Your task to perform on an android device: turn on notifications settings in the gmail app Image 0: 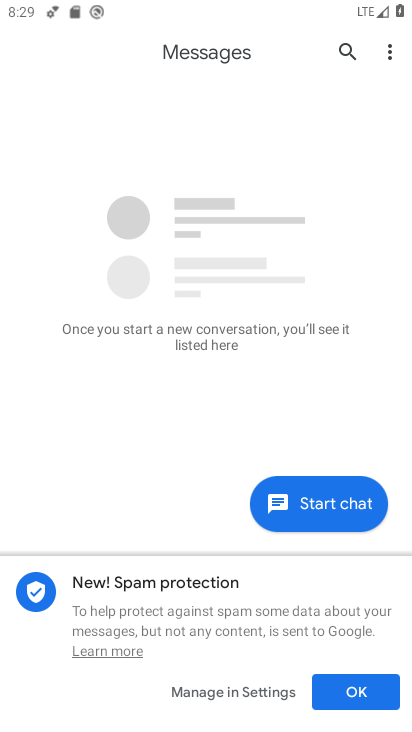
Step 0: press home button
Your task to perform on an android device: turn on notifications settings in the gmail app Image 1: 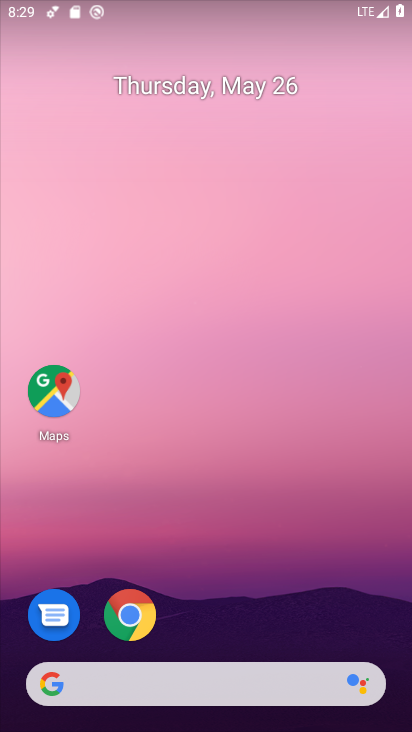
Step 1: drag from (257, 561) to (267, 221)
Your task to perform on an android device: turn on notifications settings in the gmail app Image 2: 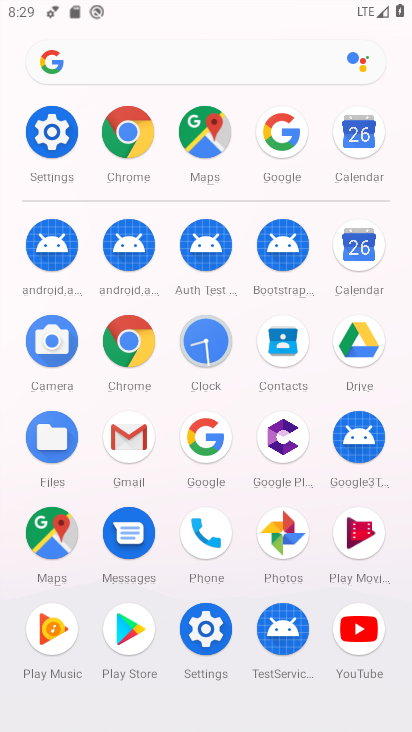
Step 2: click (123, 435)
Your task to perform on an android device: turn on notifications settings in the gmail app Image 3: 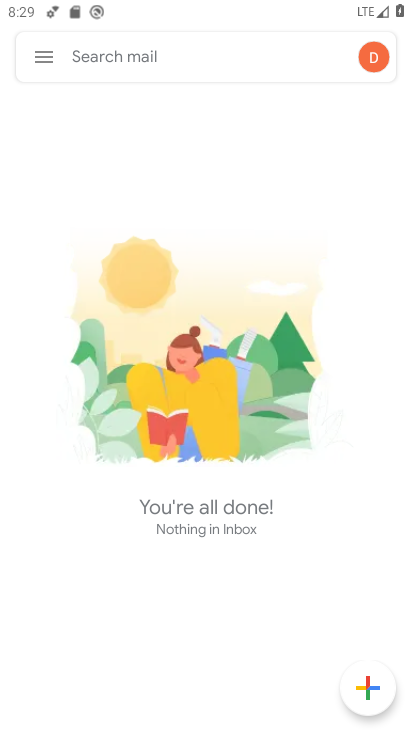
Step 3: click (42, 56)
Your task to perform on an android device: turn on notifications settings in the gmail app Image 4: 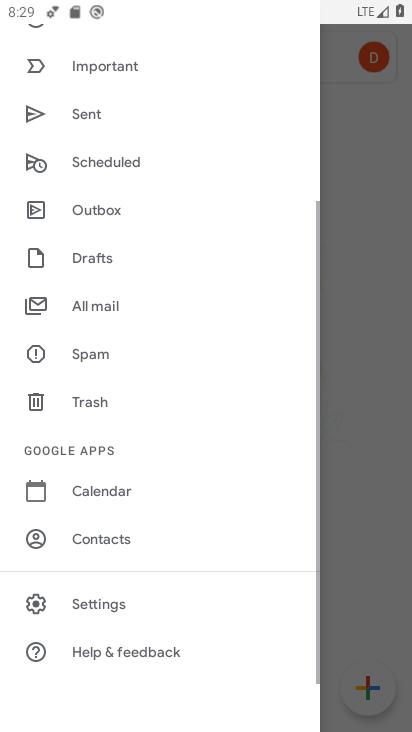
Step 4: click (115, 599)
Your task to perform on an android device: turn on notifications settings in the gmail app Image 5: 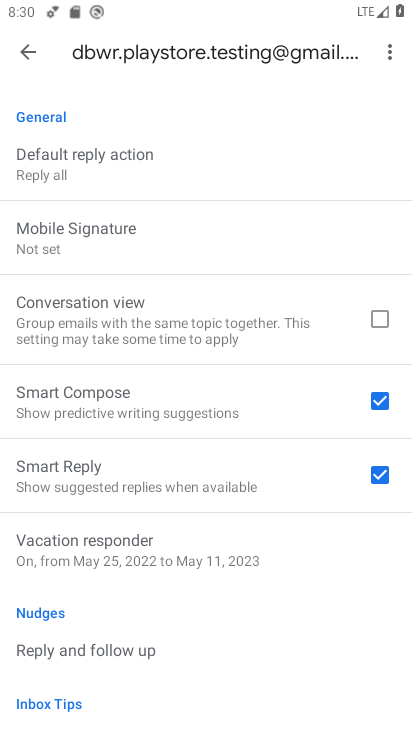
Step 5: drag from (171, 621) to (227, 272)
Your task to perform on an android device: turn on notifications settings in the gmail app Image 6: 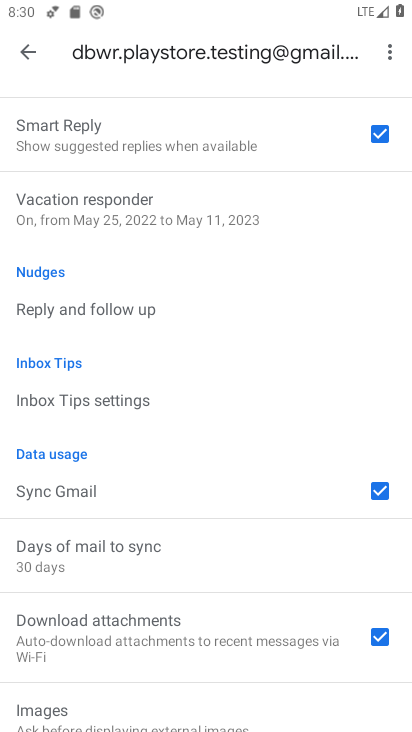
Step 6: drag from (197, 178) to (210, 590)
Your task to perform on an android device: turn on notifications settings in the gmail app Image 7: 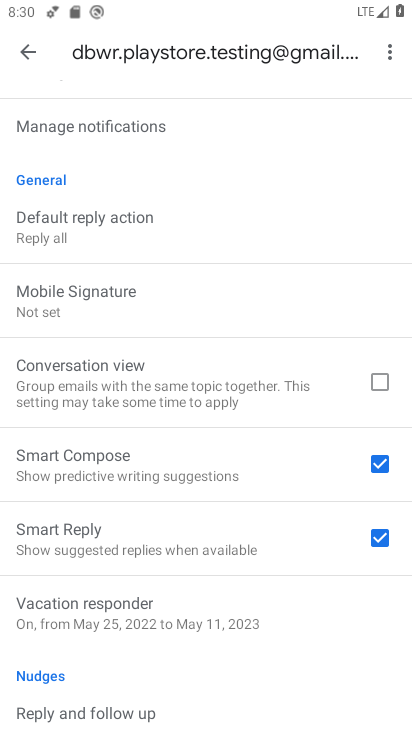
Step 7: drag from (124, 242) to (171, 591)
Your task to perform on an android device: turn on notifications settings in the gmail app Image 8: 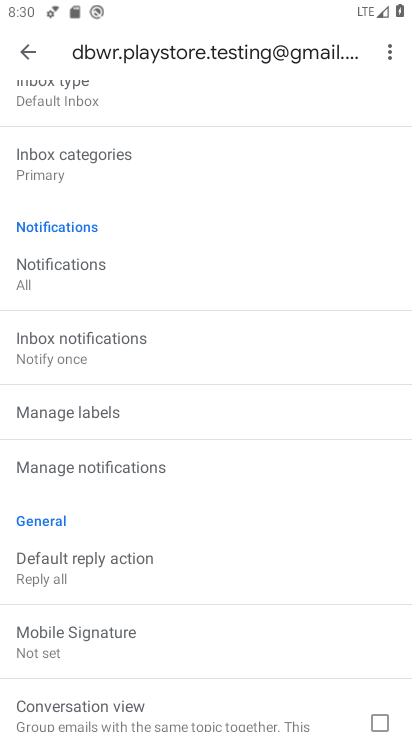
Step 8: click (104, 275)
Your task to perform on an android device: turn on notifications settings in the gmail app Image 9: 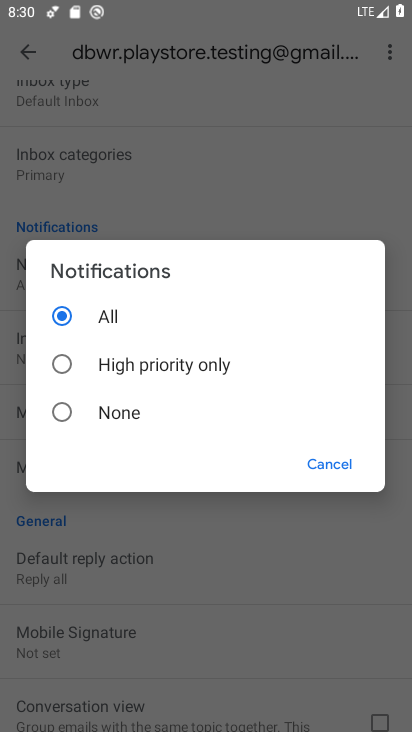
Step 9: click (317, 456)
Your task to perform on an android device: turn on notifications settings in the gmail app Image 10: 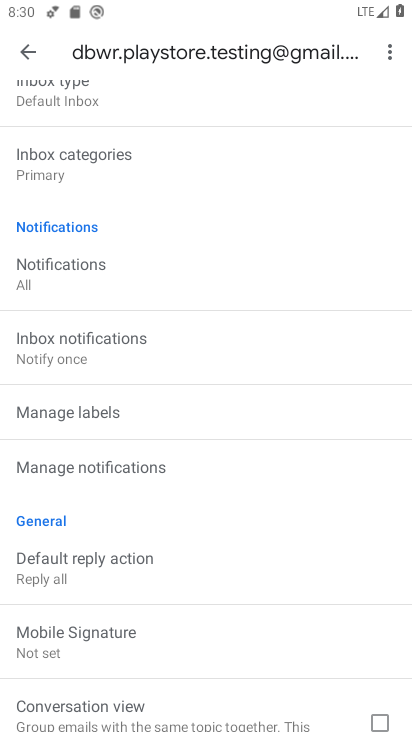
Step 10: task complete